Your task to perform on an android device: delete location history Image 0: 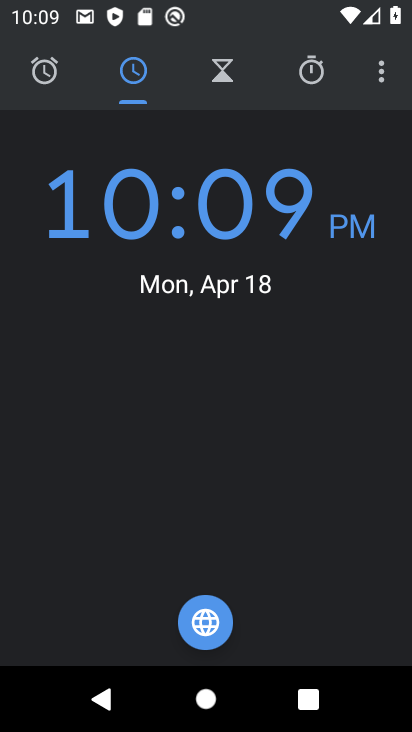
Step 0: press home button
Your task to perform on an android device: delete location history Image 1: 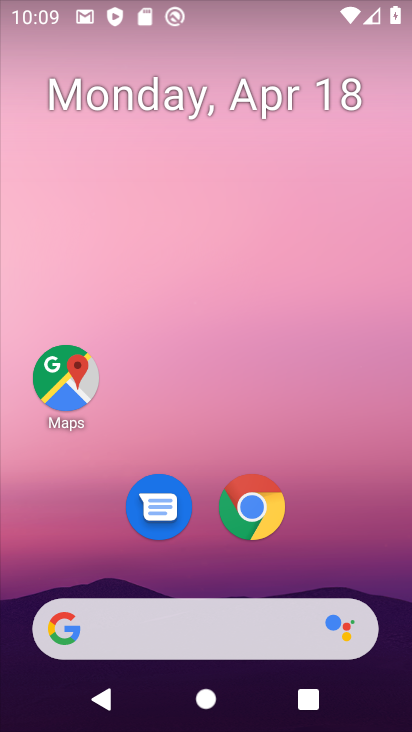
Step 1: click (66, 376)
Your task to perform on an android device: delete location history Image 2: 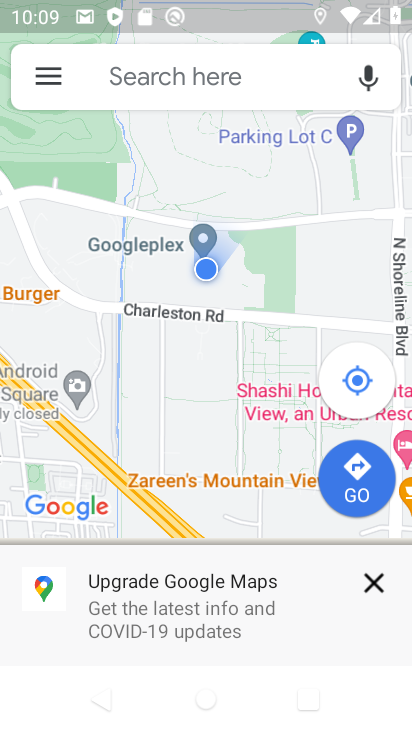
Step 2: click (50, 68)
Your task to perform on an android device: delete location history Image 3: 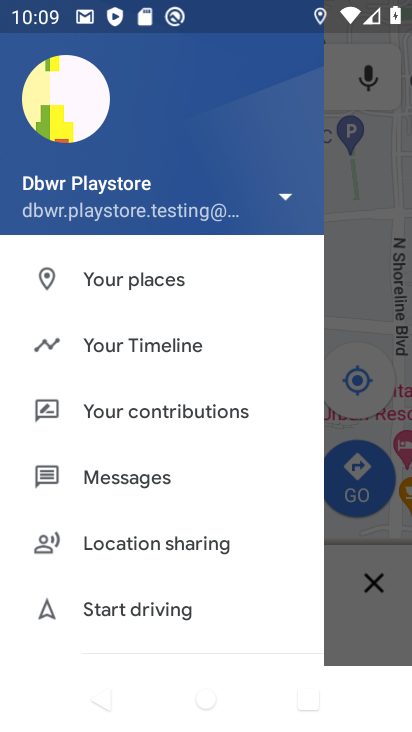
Step 3: click (157, 348)
Your task to perform on an android device: delete location history Image 4: 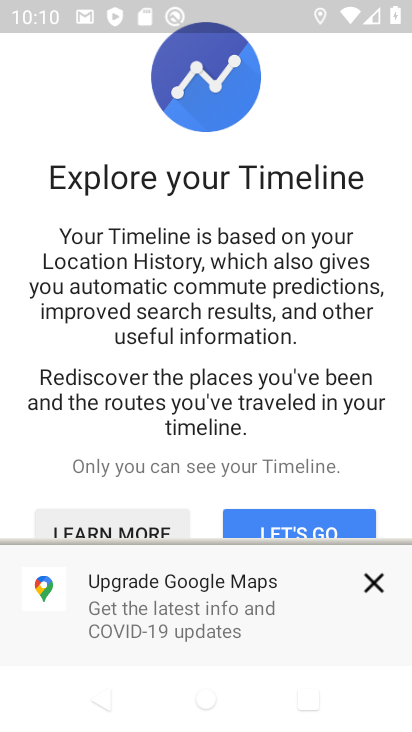
Step 4: click (281, 525)
Your task to perform on an android device: delete location history Image 5: 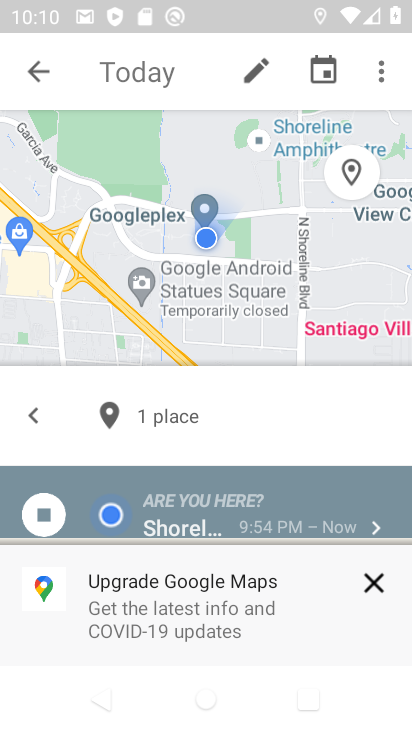
Step 5: click (376, 581)
Your task to perform on an android device: delete location history Image 6: 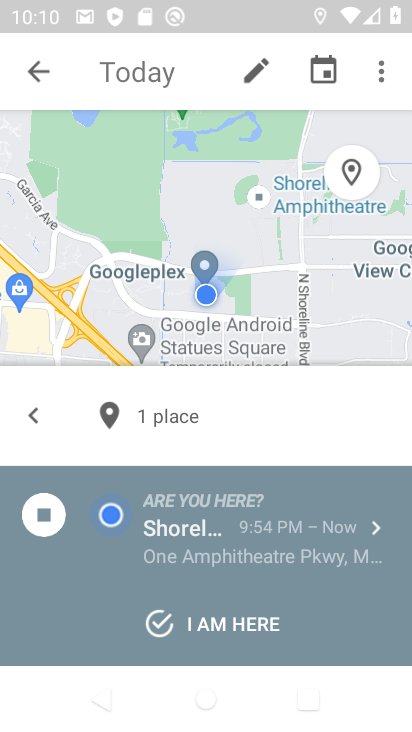
Step 6: click (384, 73)
Your task to perform on an android device: delete location history Image 7: 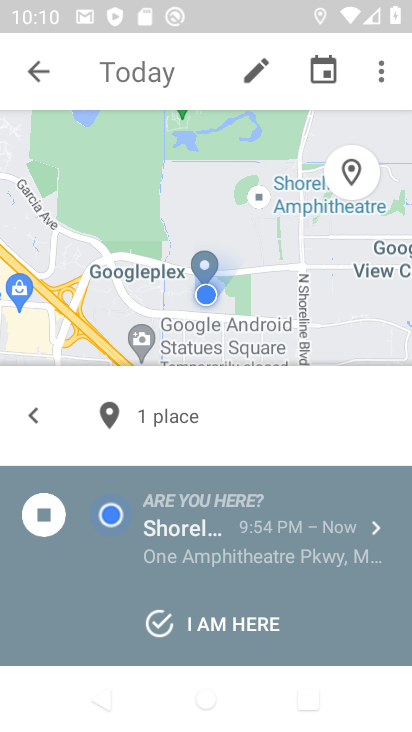
Step 7: click (384, 73)
Your task to perform on an android device: delete location history Image 8: 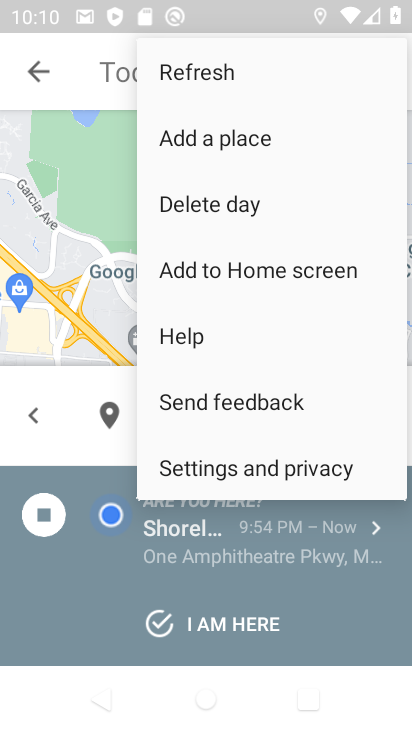
Step 8: click (301, 464)
Your task to perform on an android device: delete location history Image 9: 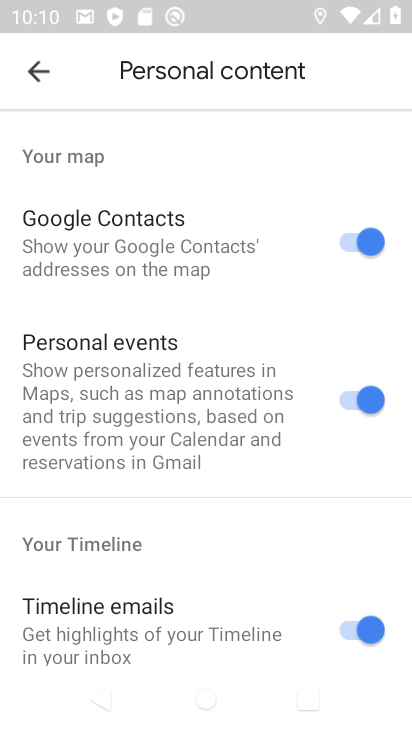
Step 9: drag from (258, 570) to (243, 161)
Your task to perform on an android device: delete location history Image 10: 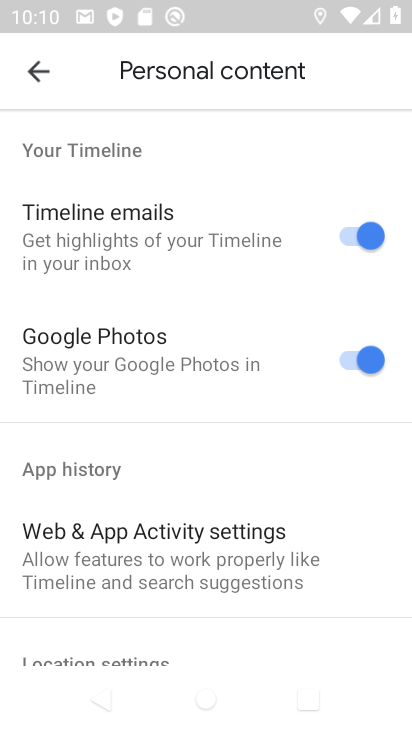
Step 10: drag from (210, 584) to (250, 172)
Your task to perform on an android device: delete location history Image 11: 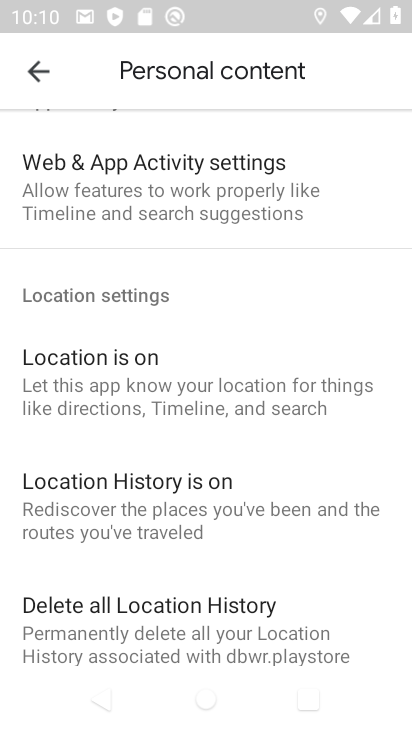
Step 11: click (197, 625)
Your task to perform on an android device: delete location history Image 12: 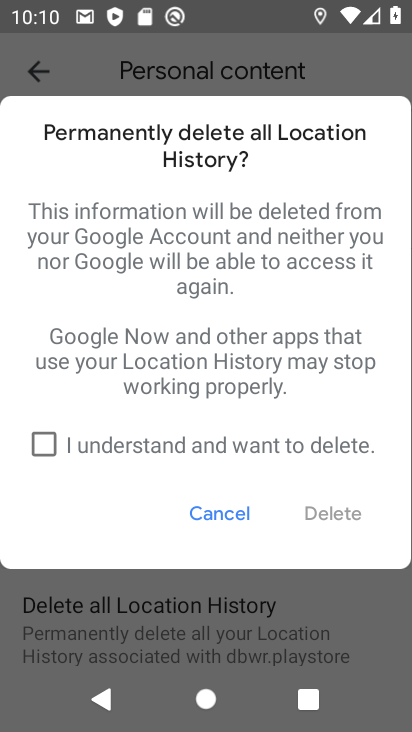
Step 12: click (48, 428)
Your task to perform on an android device: delete location history Image 13: 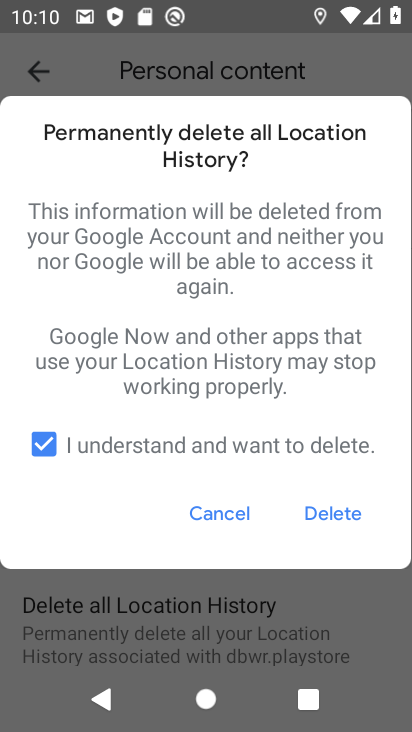
Step 13: click (327, 506)
Your task to perform on an android device: delete location history Image 14: 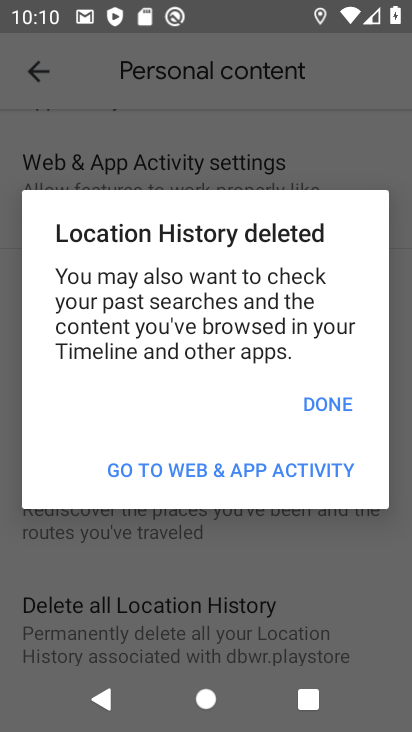
Step 14: click (327, 387)
Your task to perform on an android device: delete location history Image 15: 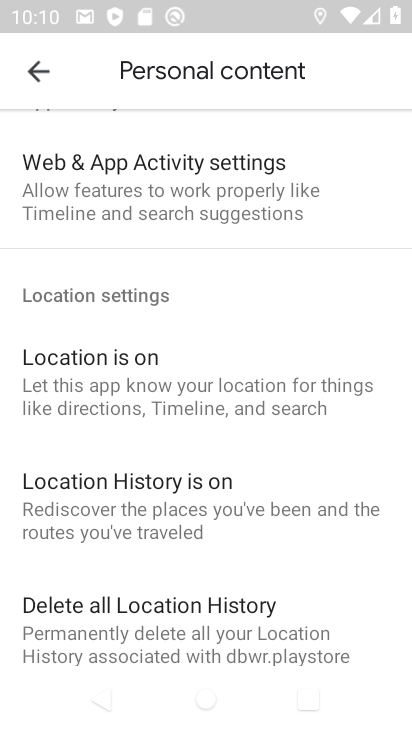
Step 15: task complete